Your task to perform on an android device: Open CNN.com Image 0: 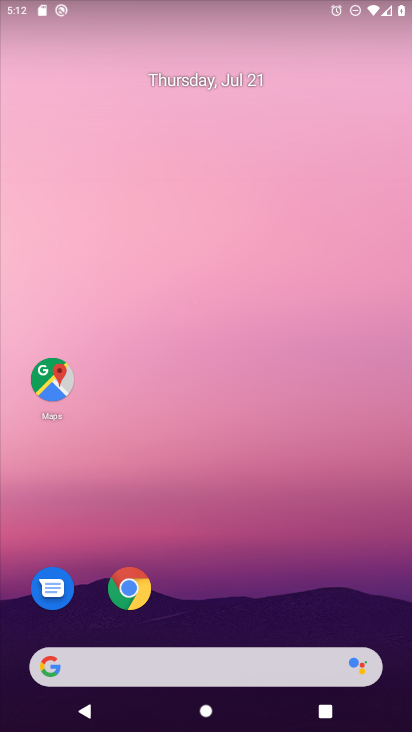
Step 0: drag from (321, 629) to (242, 190)
Your task to perform on an android device: Open CNN.com Image 1: 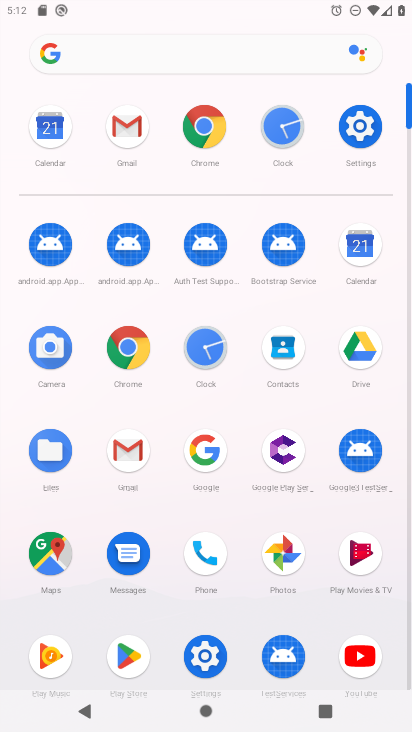
Step 1: click (194, 131)
Your task to perform on an android device: Open CNN.com Image 2: 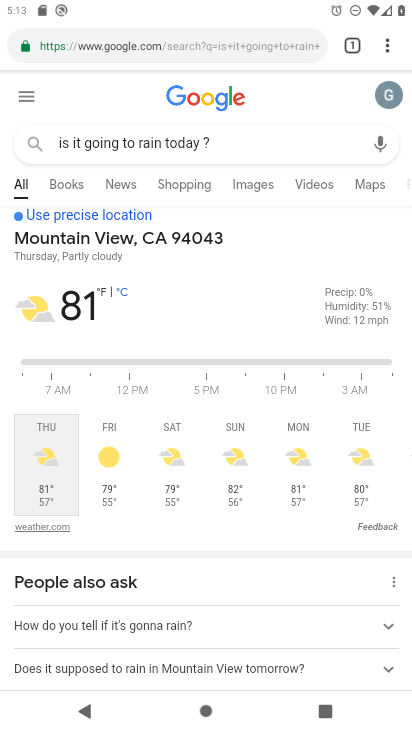
Step 2: click (192, 52)
Your task to perform on an android device: Open CNN.com Image 3: 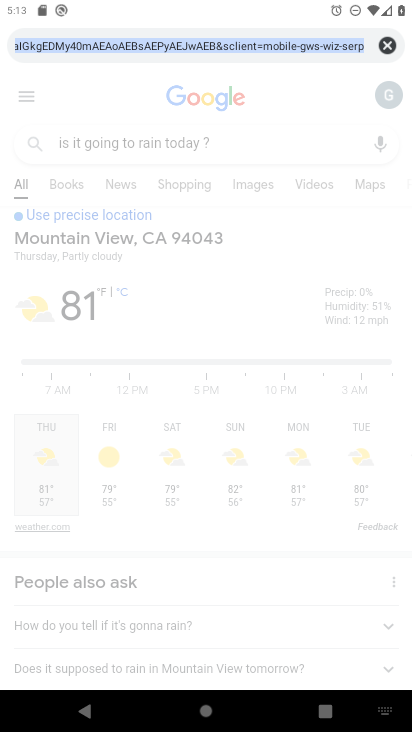
Step 3: type "cnn.com"
Your task to perform on an android device: Open CNN.com Image 4: 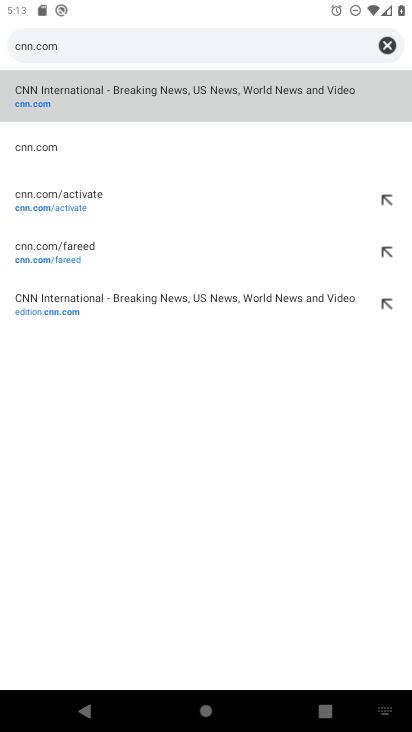
Step 4: click (42, 101)
Your task to perform on an android device: Open CNN.com Image 5: 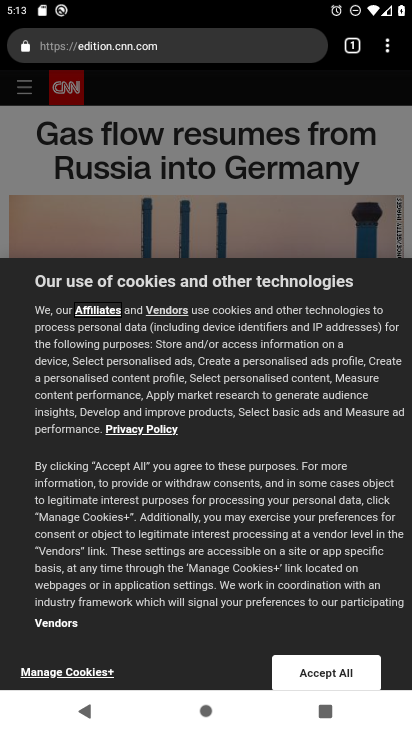
Step 5: task complete